Your task to perform on an android device: Is it going to rain tomorrow? Image 0: 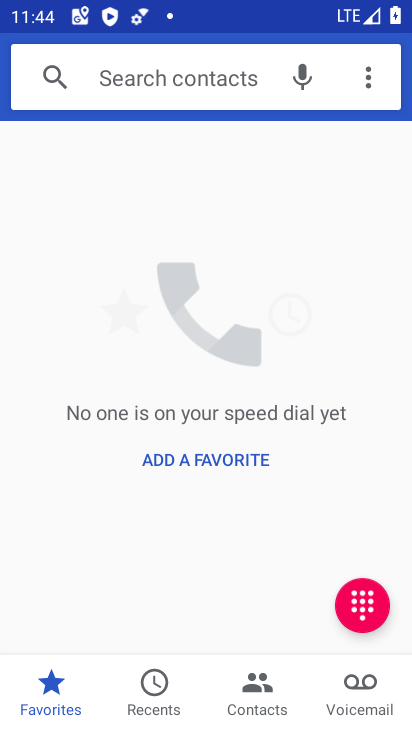
Step 0: press back button
Your task to perform on an android device: Is it going to rain tomorrow? Image 1: 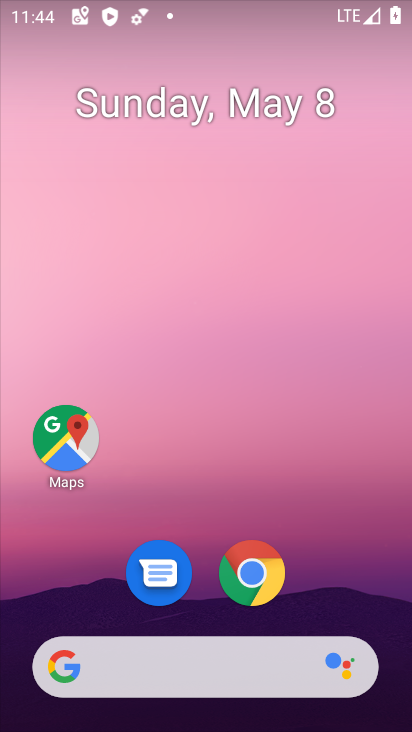
Step 1: click (252, 573)
Your task to perform on an android device: Is it going to rain tomorrow? Image 2: 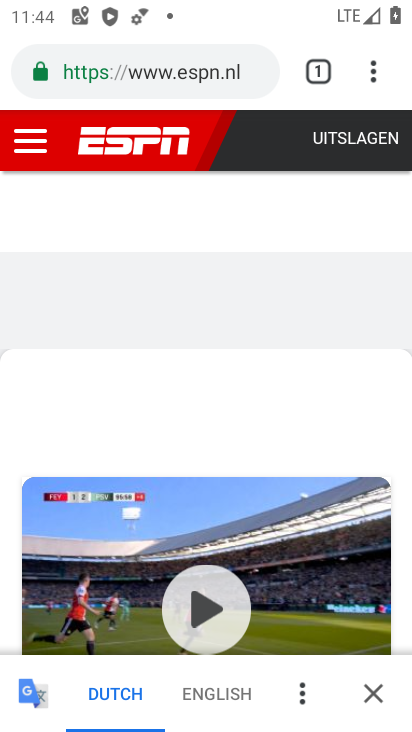
Step 2: click (208, 75)
Your task to perform on an android device: Is it going to rain tomorrow? Image 3: 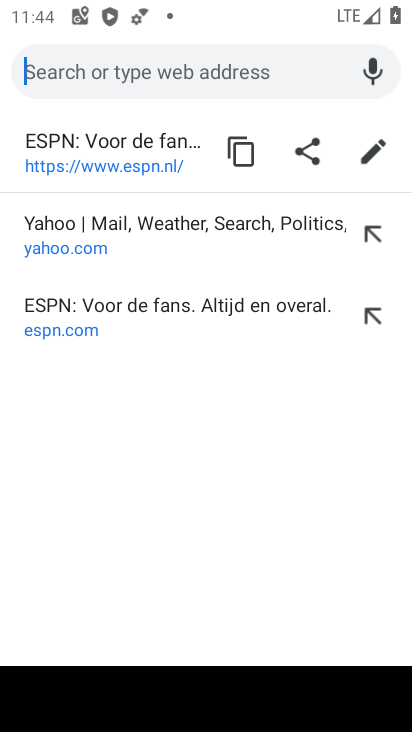
Step 3: type "Is it going to rain tomorrow?"
Your task to perform on an android device: Is it going to rain tomorrow? Image 4: 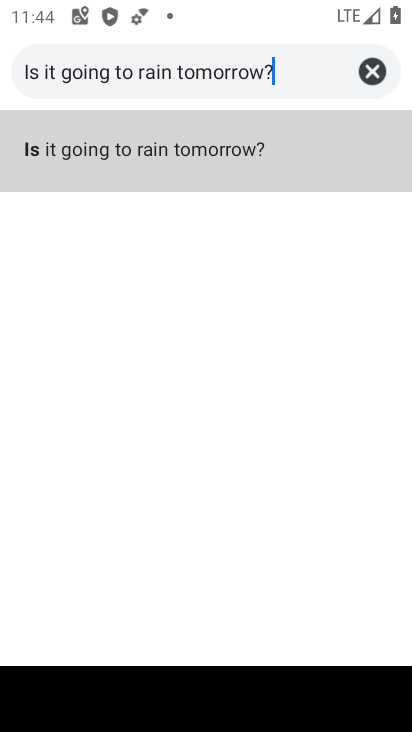
Step 4: type ""
Your task to perform on an android device: Is it going to rain tomorrow? Image 5: 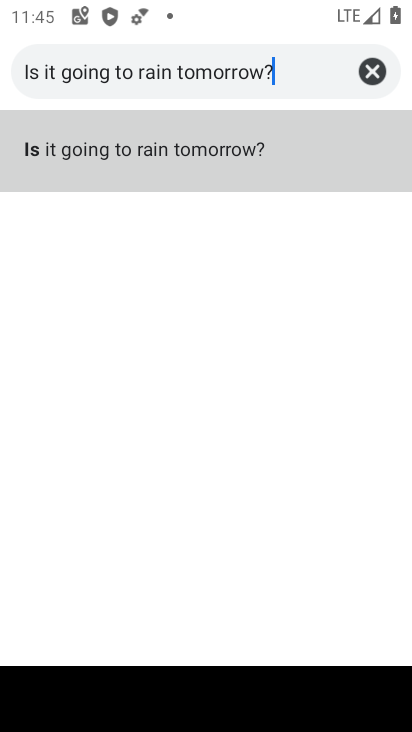
Step 5: click (191, 124)
Your task to perform on an android device: Is it going to rain tomorrow? Image 6: 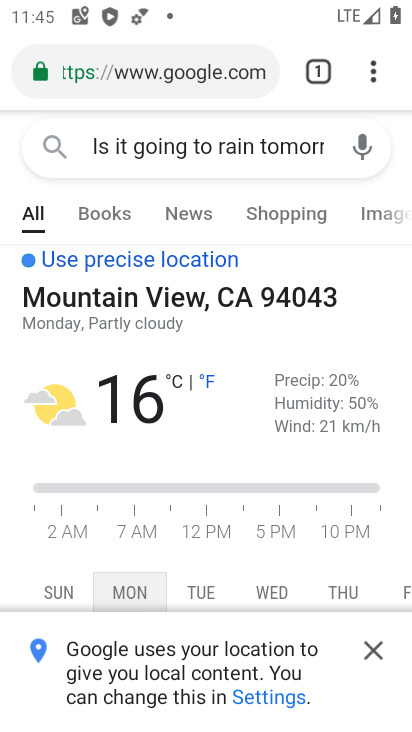
Step 6: task complete